Your task to perform on an android device: snooze an email in the gmail app Image 0: 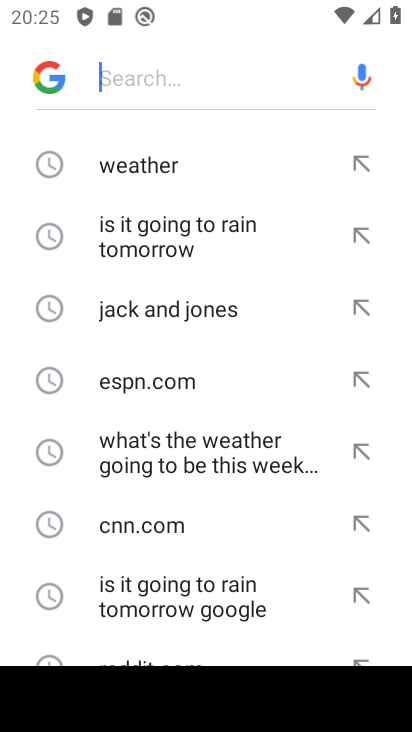
Step 0: press home button
Your task to perform on an android device: snooze an email in the gmail app Image 1: 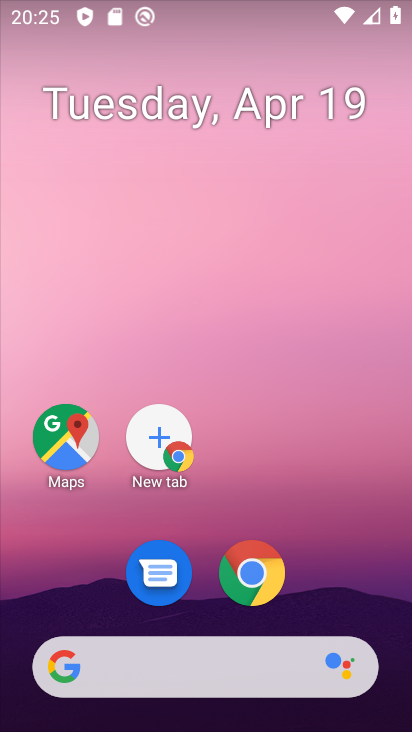
Step 1: drag from (361, 462) to (346, 50)
Your task to perform on an android device: snooze an email in the gmail app Image 2: 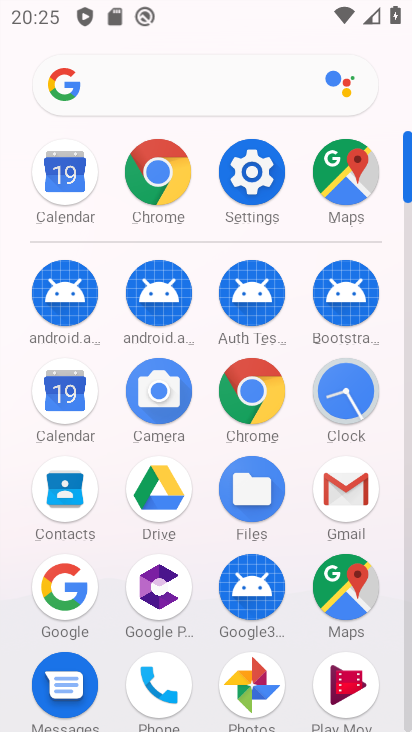
Step 2: click (334, 498)
Your task to perform on an android device: snooze an email in the gmail app Image 3: 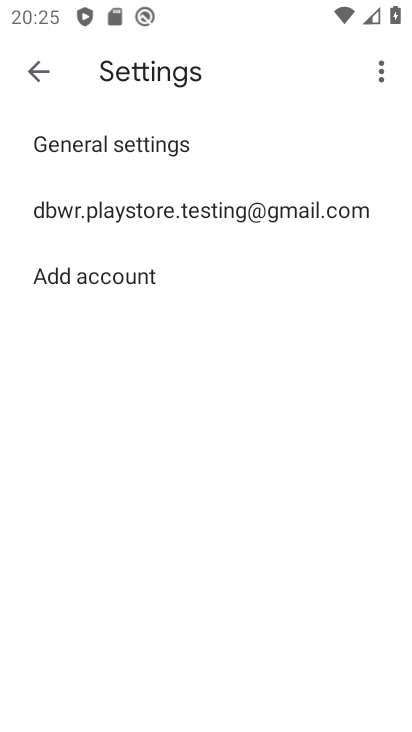
Step 3: click (39, 68)
Your task to perform on an android device: snooze an email in the gmail app Image 4: 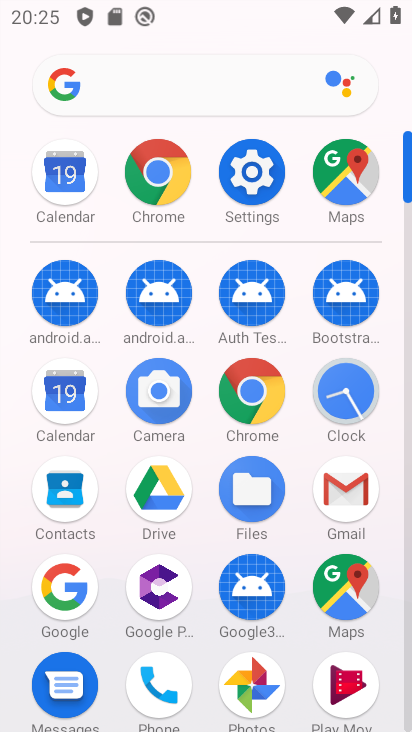
Step 4: click (329, 490)
Your task to perform on an android device: snooze an email in the gmail app Image 5: 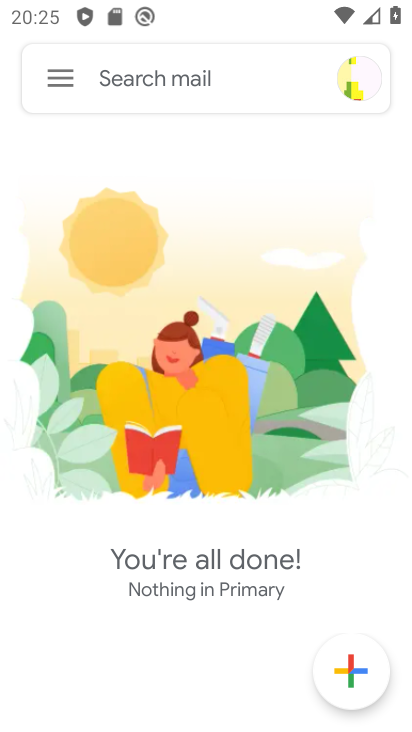
Step 5: click (58, 79)
Your task to perform on an android device: snooze an email in the gmail app Image 6: 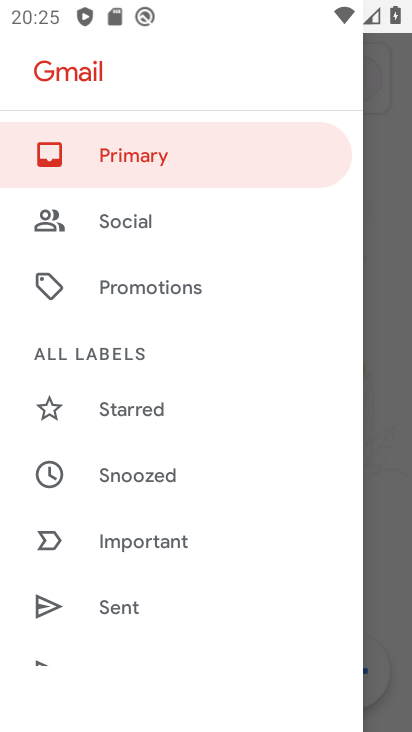
Step 6: click (98, 159)
Your task to perform on an android device: snooze an email in the gmail app Image 7: 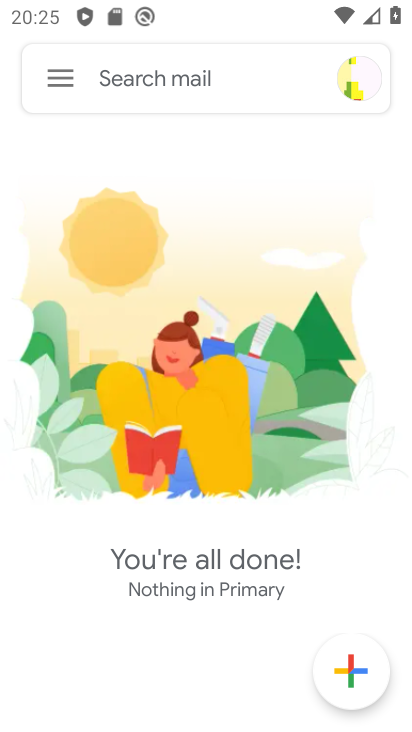
Step 7: task complete